Your task to perform on an android device: empty trash in google photos Image 0: 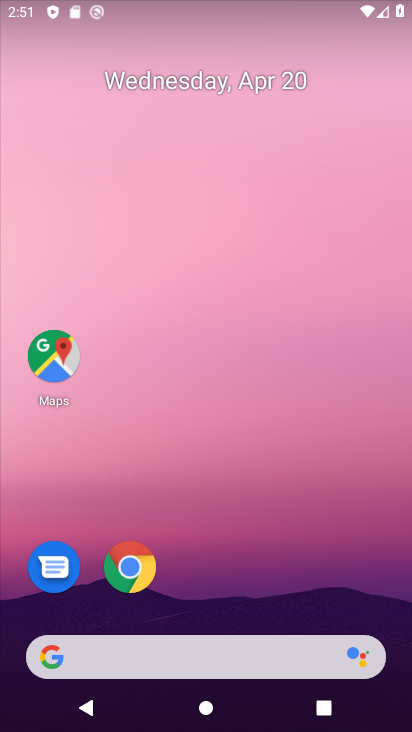
Step 0: drag from (255, 569) to (315, 161)
Your task to perform on an android device: empty trash in google photos Image 1: 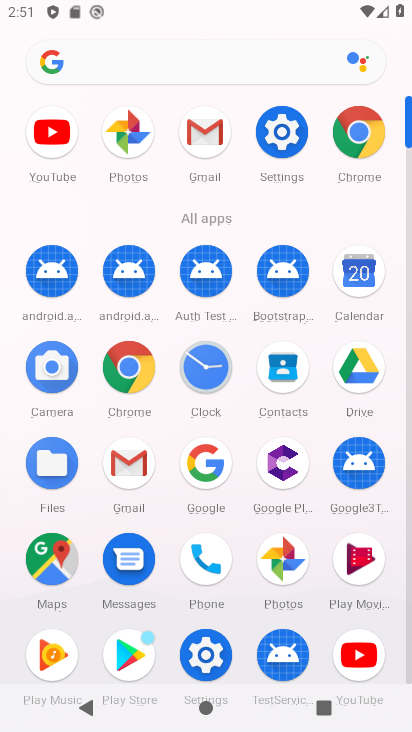
Step 1: click (275, 563)
Your task to perform on an android device: empty trash in google photos Image 2: 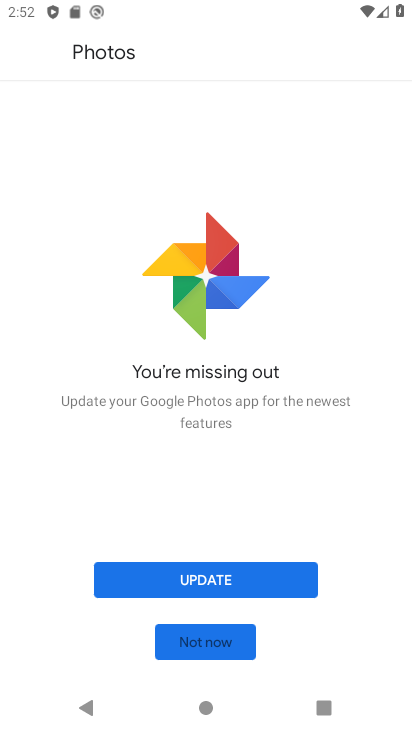
Step 2: click (201, 651)
Your task to perform on an android device: empty trash in google photos Image 3: 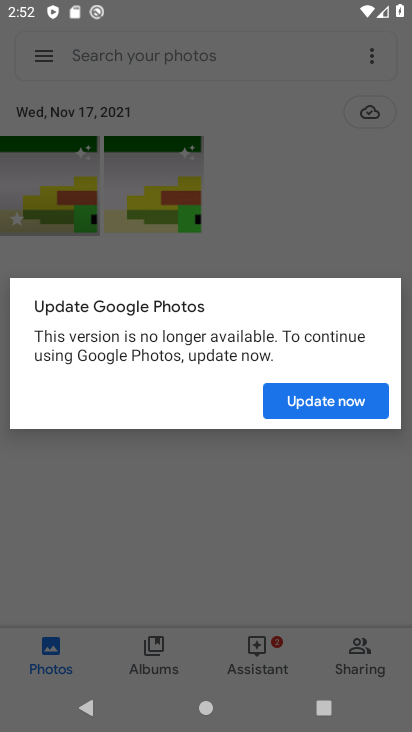
Step 3: click (279, 407)
Your task to perform on an android device: empty trash in google photos Image 4: 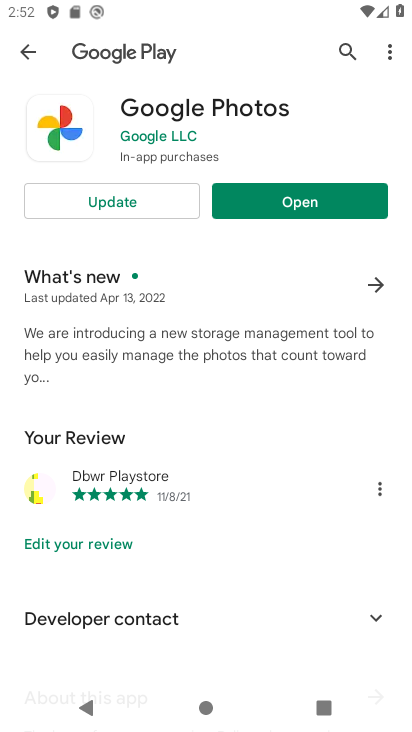
Step 4: click (289, 198)
Your task to perform on an android device: empty trash in google photos Image 5: 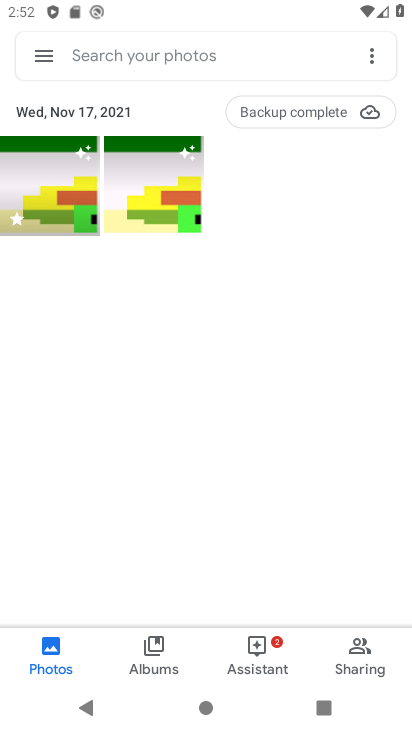
Step 5: click (30, 51)
Your task to perform on an android device: empty trash in google photos Image 6: 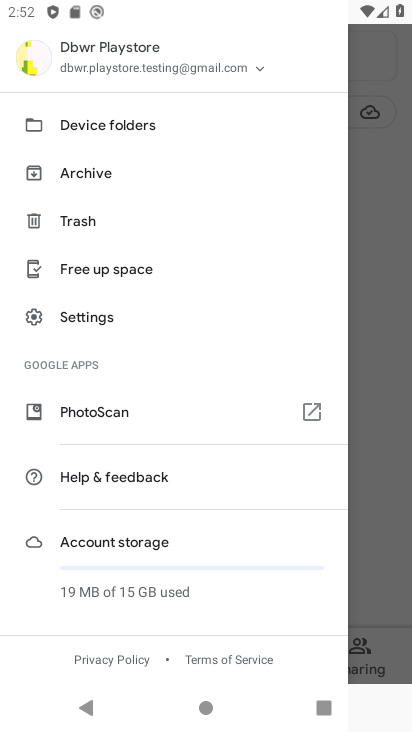
Step 6: click (79, 215)
Your task to perform on an android device: empty trash in google photos Image 7: 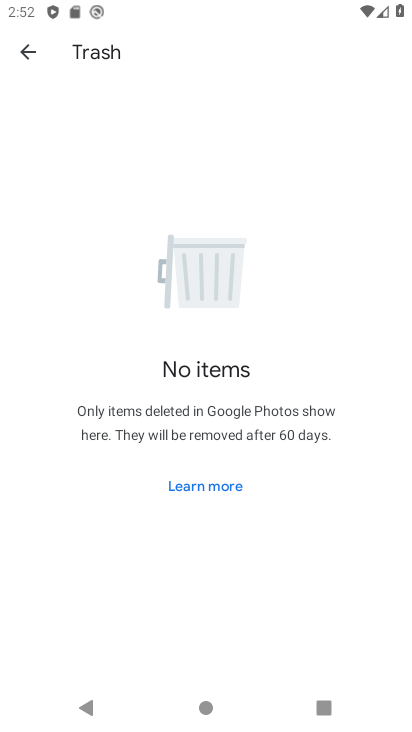
Step 7: task complete